Your task to perform on an android device: turn on notifications settings in the gmail app Image 0: 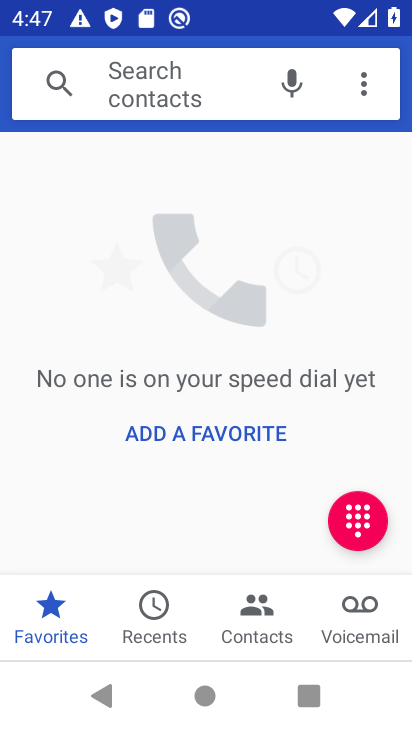
Step 0: click (207, 697)
Your task to perform on an android device: turn on notifications settings in the gmail app Image 1: 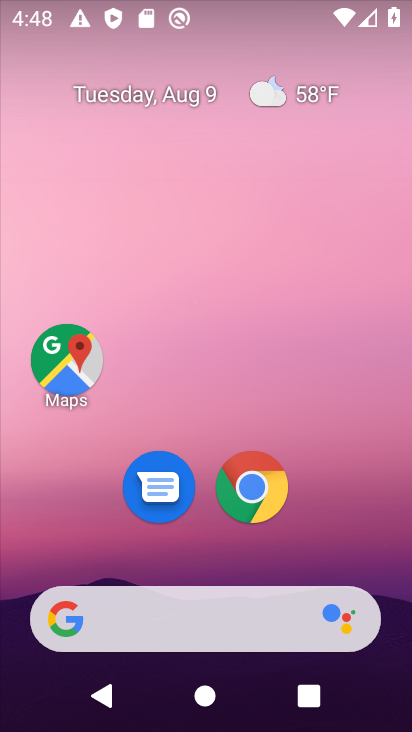
Step 1: drag from (181, 551) to (189, 121)
Your task to perform on an android device: turn on notifications settings in the gmail app Image 2: 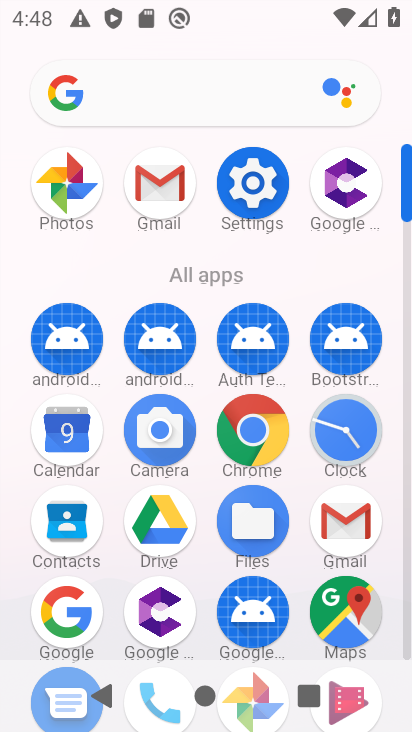
Step 2: click (151, 168)
Your task to perform on an android device: turn on notifications settings in the gmail app Image 3: 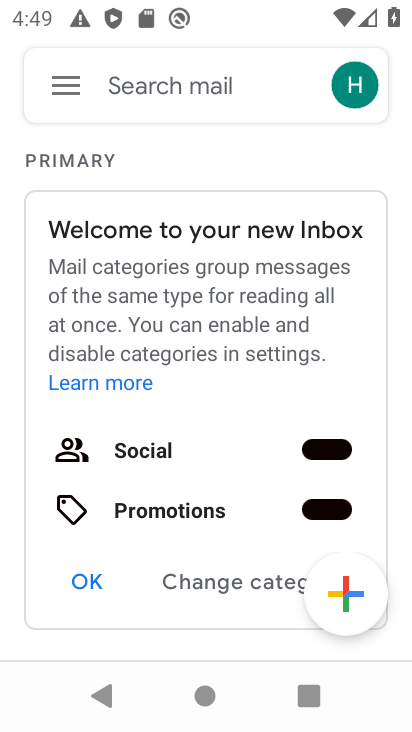
Step 3: click (72, 88)
Your task to perform on an android device: turn on notifications settings in the gmail app Image 4: 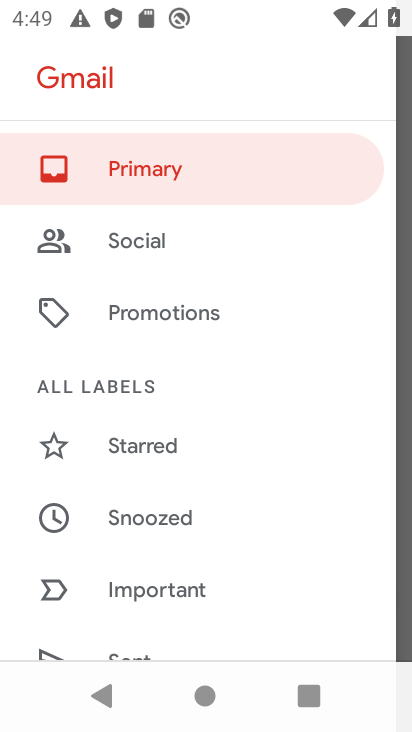
Step 4: drag from (359, 556) to (299, 46)
Your task to perform on an android device: turn on notifications settings in the gmail app Image 5: 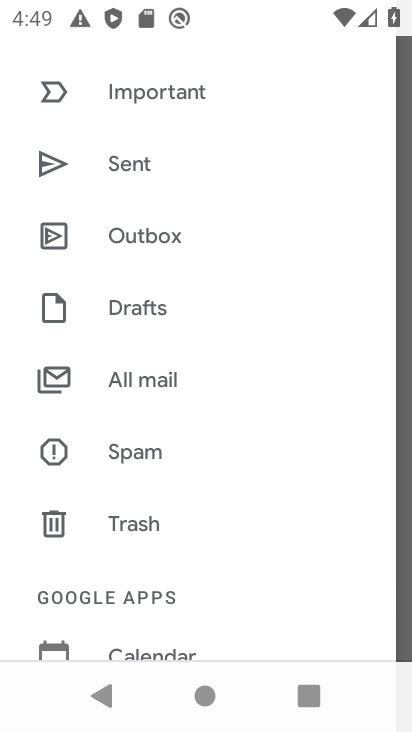
Step 5: drag from (307, 583) to (325, 144)
Your task to perform on an android device: turn on notifications settings in the gmail app Image 6: 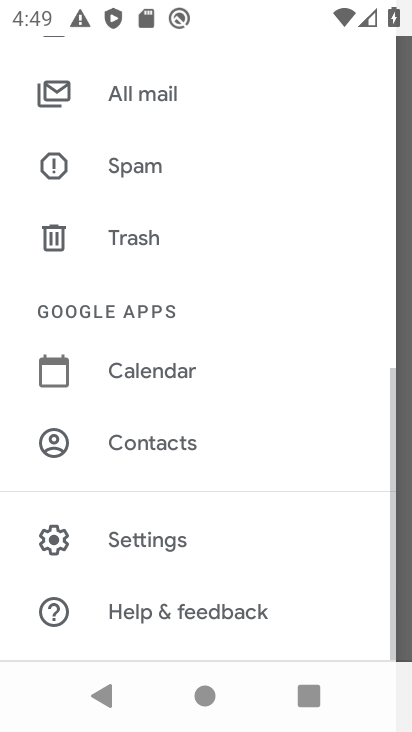
Step 6: click (145, 551)
Your task to perform on an android device: turn on notifications settings in the gmail app Image 7: 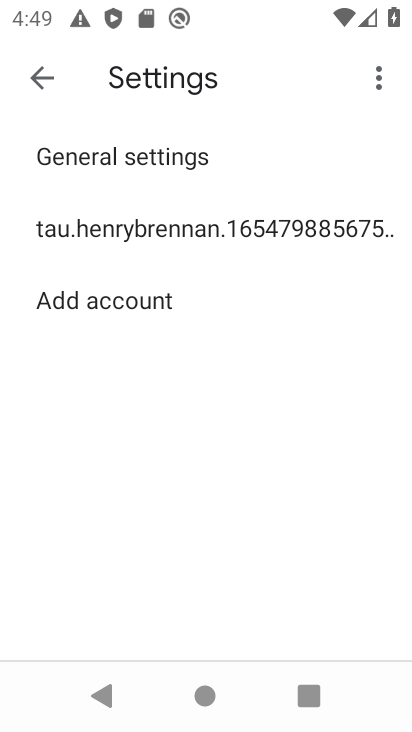
Step 7: click (138, 165)
Your task to perform on an android device: turn on notifications settings in the gmail app Image 8: 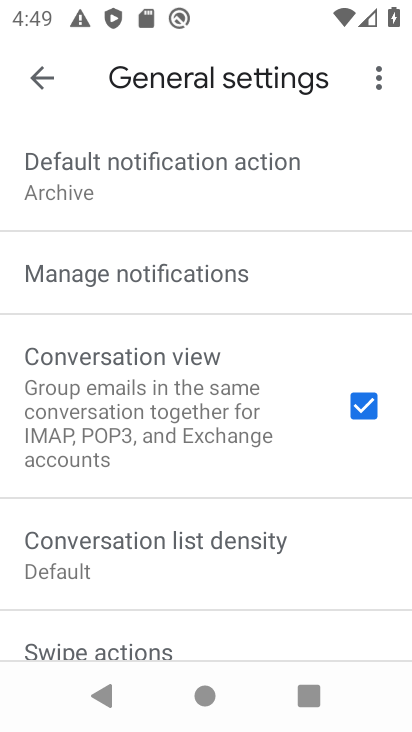
Step 8: click (170, 173)
Your task to perform on an android device: turn on notifications settings in the gmail app Image 9: 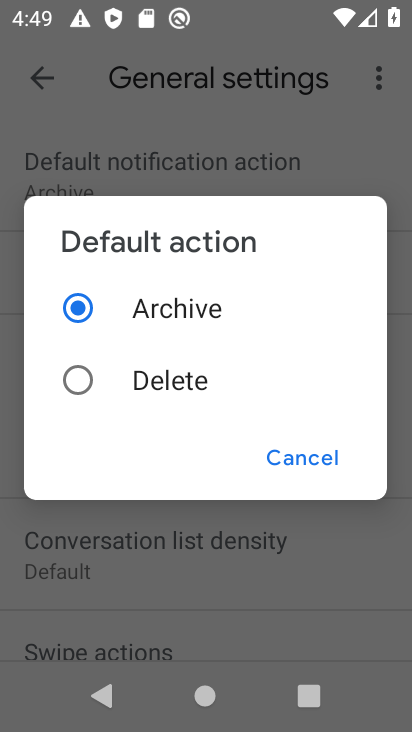
Step 9: click (297, 450)
Your task to perform on an android device: turn on notifications settings in the gmail app Image 10: 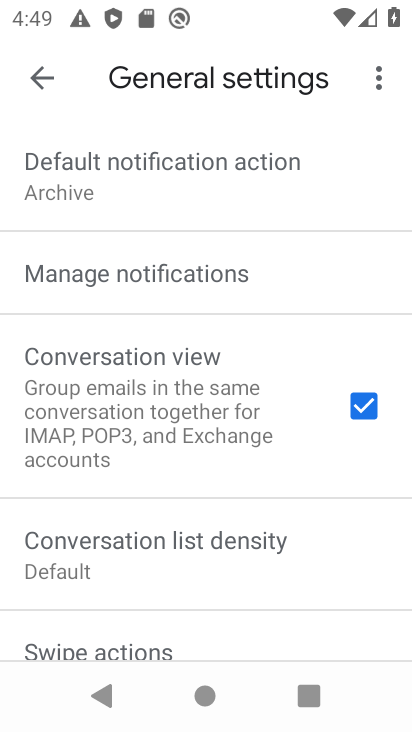
Step 10: click (189, 279)
Your task to perform on an android device: turn on notifications settings in the gmail app Image 11: 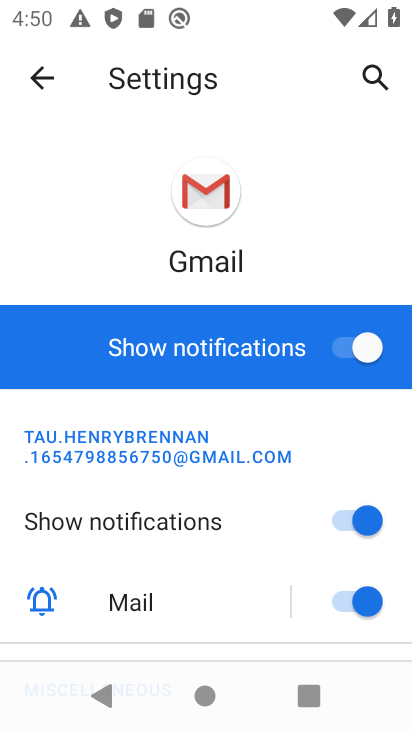
Step 11: task complete